Your task to perform on an android device: turn on showing notifications on the lock screen Image 0: 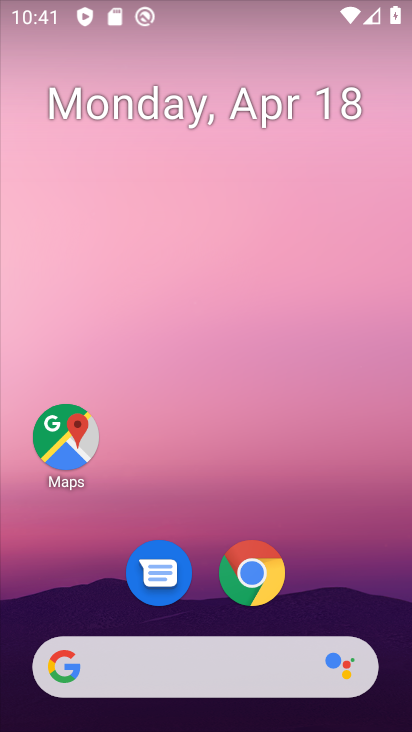
Step 0: drag from (320, 530) to (311, 46)
Your task to perform on an android device: turn on showing notifications on the lock screen Image 1: 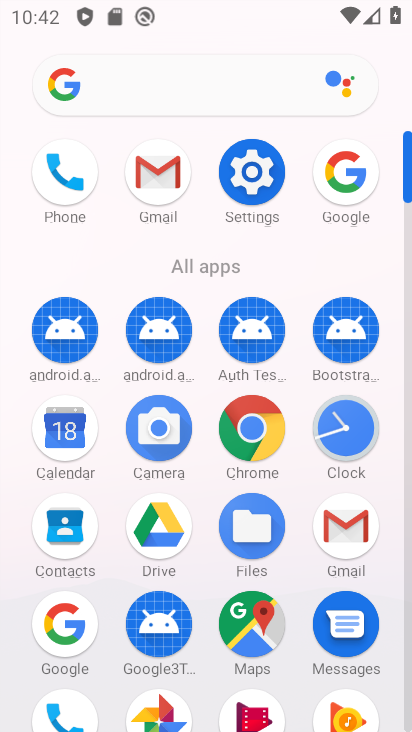
Step 1: click (258, 190)
Your task to perform on an android device: turn on showing notifications on the lock screen Image 2: 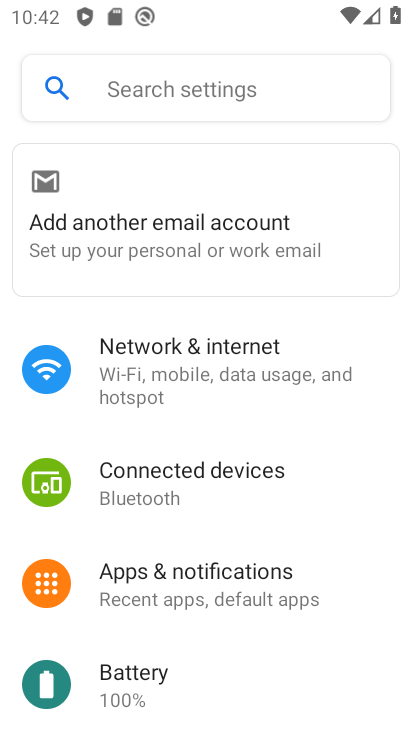
Step 2: click (132, 580)
Your task to perform on an android device: turn on showing notifications on the lock screen Image 3: 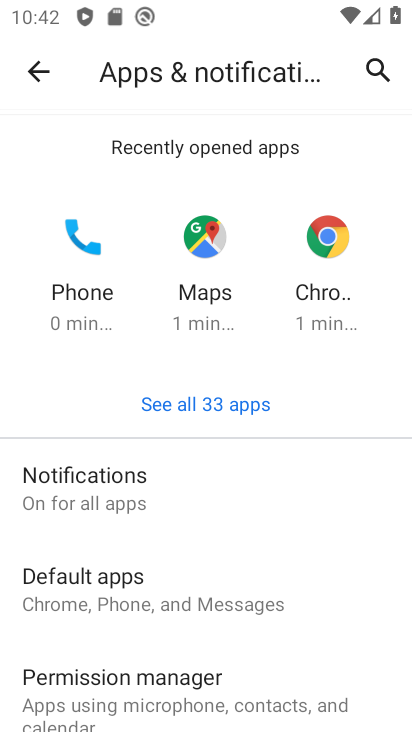
Step 3: click (77, 500)
Your task to perform on an android device: turn on showing notifications on the lock screen Image 4: 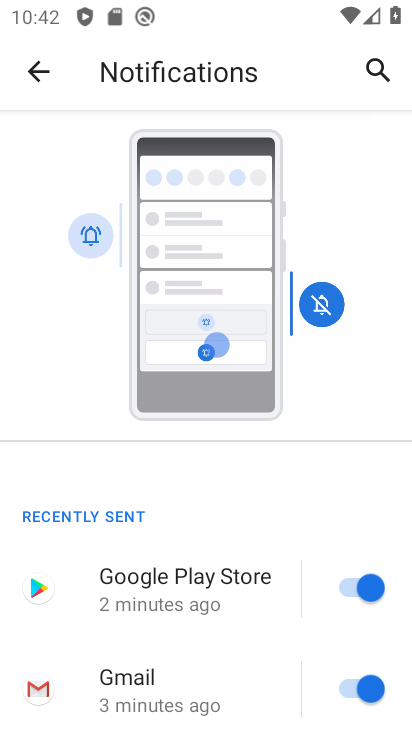
Step 4: drag from (194, 632) to (180, 355)
Your task to perform on an android device: turn on showing notifications on the lock screen Image 5: 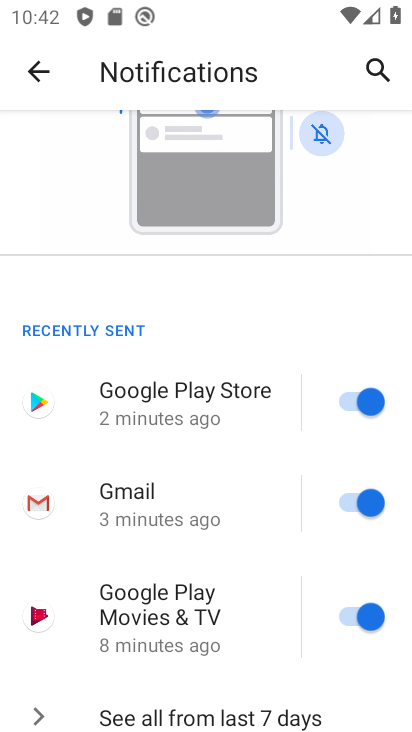
Step 5: drag from (131, 677) to (130, 264)
Your task to perform on an android device: turn on showing notifications on the lock screen Image 6: 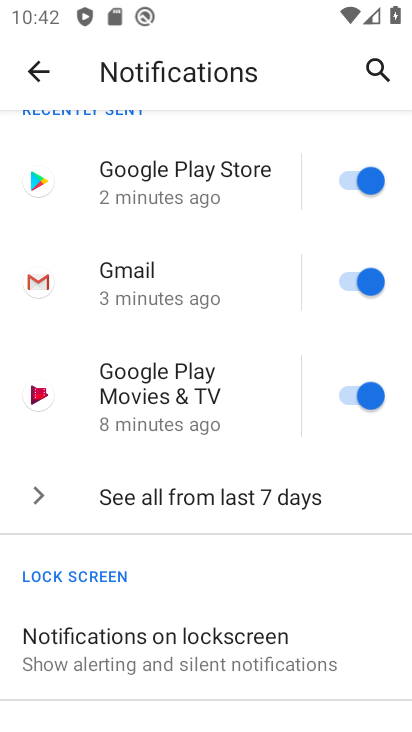
Step 6: drag from (100, 662) to (133, 246)
Your task to perform on an android device: turn on showing notifications on the lock screen Image 7: 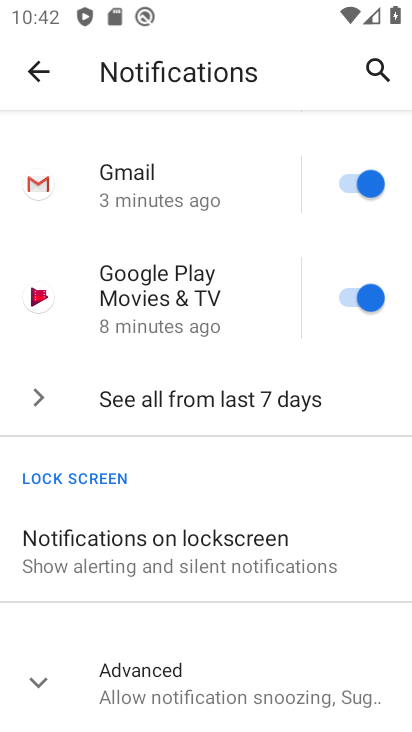
Step 7: drag from (178, 217) to (144, 702)
Your task to perform on an android device: turn on showing notifications on the lock screen Image 8: 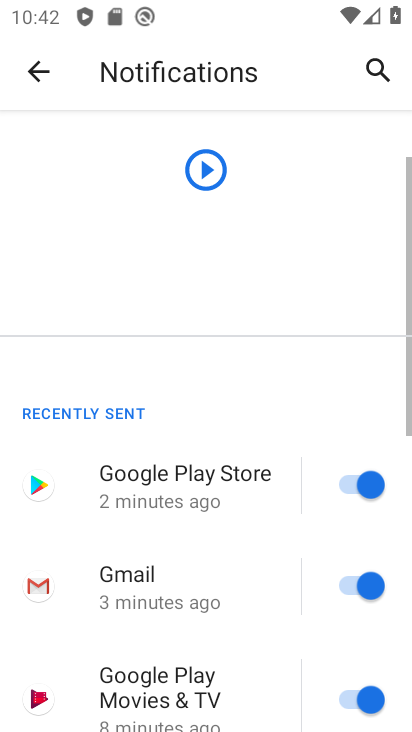
Step 8: drag from (182, 257) to (177, 506)
Your task to perform on an android device: turn on showing notifications on the lock screen Image 9: 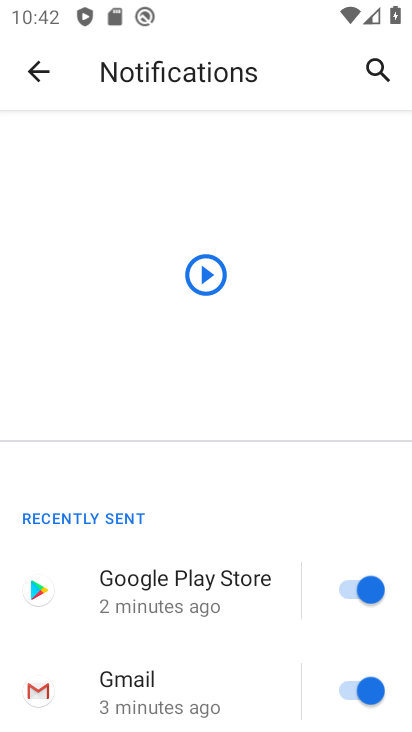
Step 9: drag from (150, 622) to (161, 126)
Your task to perform on an android device: turn on showing notifications on the lock screen Image 10: 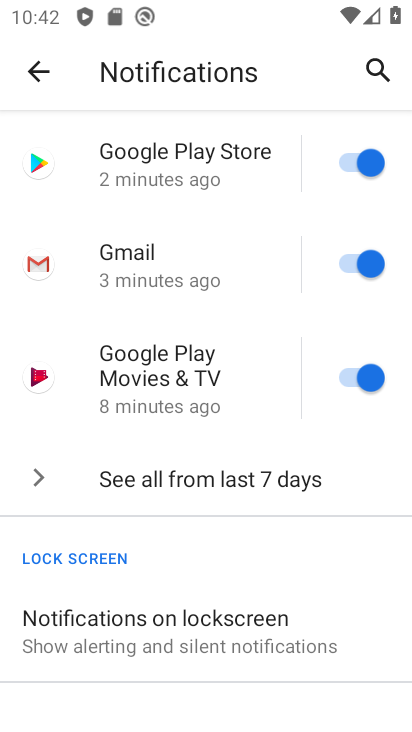
Step 10: click (137, 626)
Your task to perform on an android device: turn on showing notifications on the lock screen Image 11: 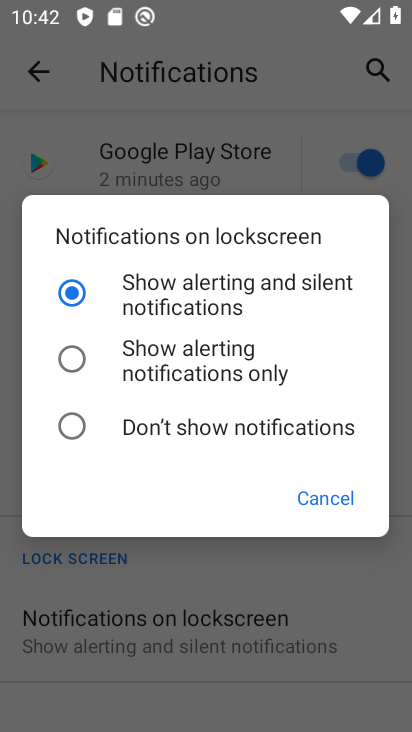
Step 11: click (134, 298)
Your task to perform on an android device: turn on showing notifications on the lock screen Image 12: 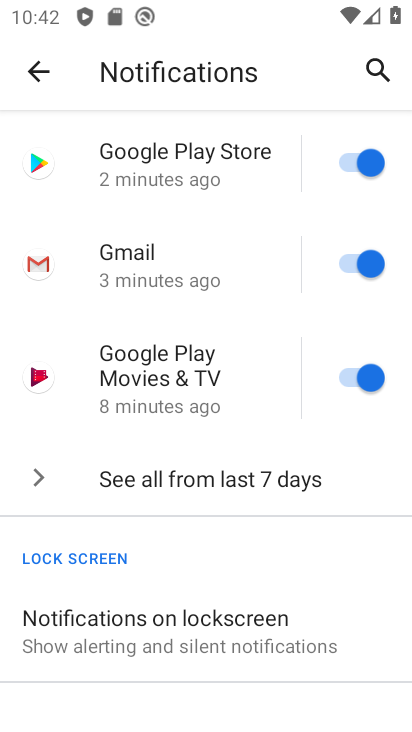
Step 12: task complete